Your task to perform on an android device: turn on priority inbox in the gmail app Image 0: 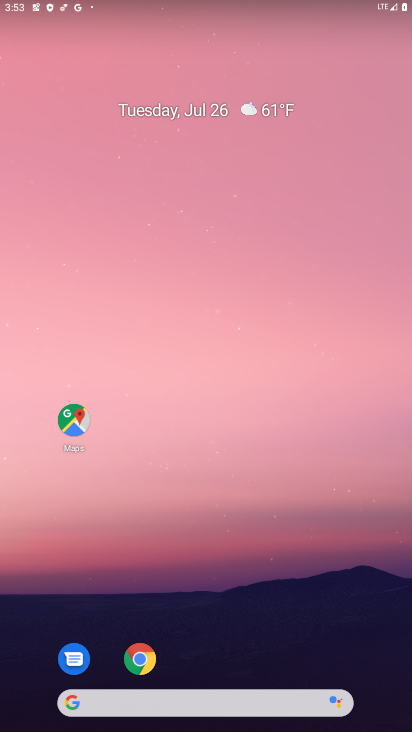
Step 0: drag from (335, 644) to (312, 113)
Your task to perform on an android device: turn on priority inbox in the gmail app Image 1: 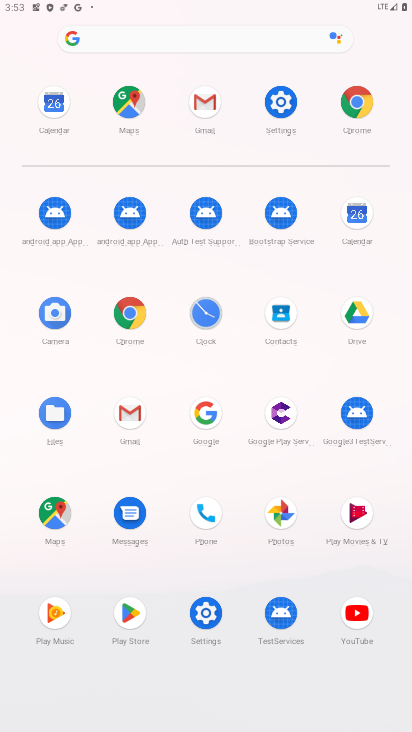
Step 1: click (208, 105)
Your task to perform on an android device: turn on priority inbox in the gmail app Image 2: 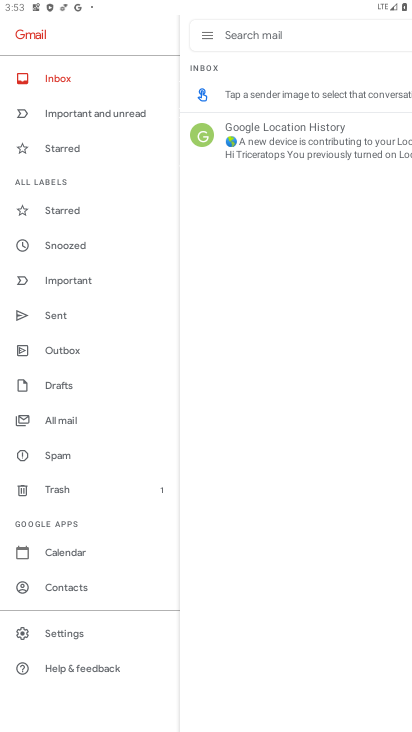
Step 2: click (93, 636)
Your task to perform on an android device: turn on priority inbox in the gmail app Image 3: 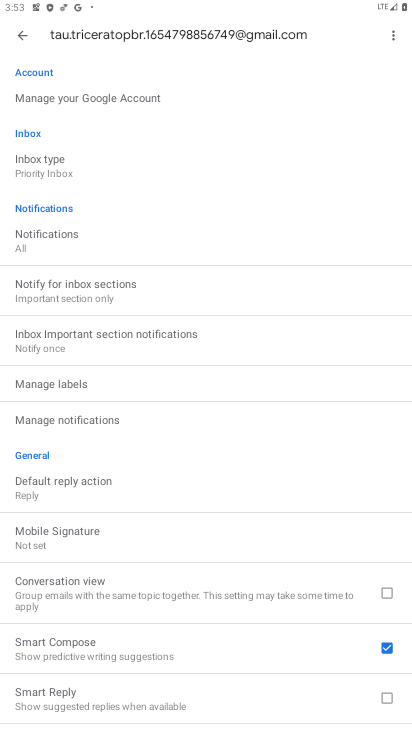
Step 3: click (33, 163)
Your task to perform on an android device: turn on priority inbox in the gmail app Image 4: 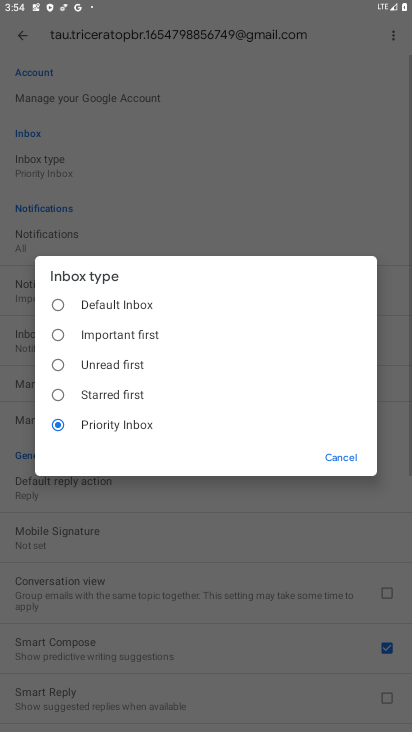
Step 4: task complete